Your task to perform on an android device: snooze an email in the gmail app Image 0: 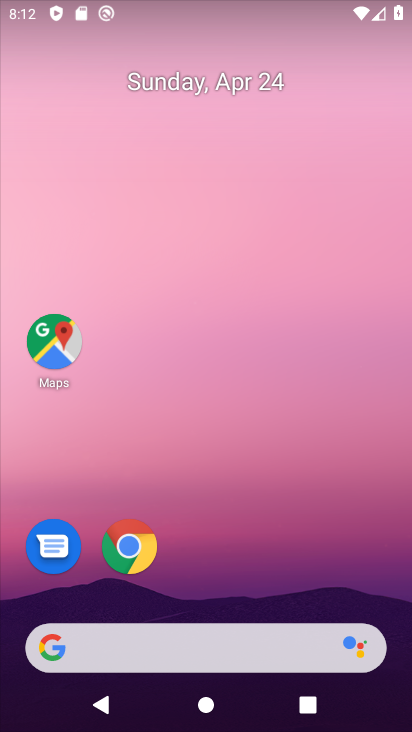
Step 0: drag from (283, 230) to (313, 2)
Your task to perform on an android device: snooze an email in the gmail app Image 1: 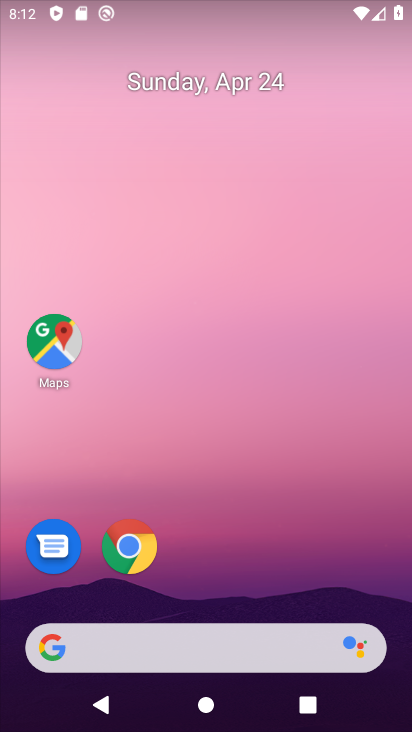
Step 1: drag from (257, 376) to (282, 58)
Your task to perform on an android device: snooze an email in the gmail app Image 2: 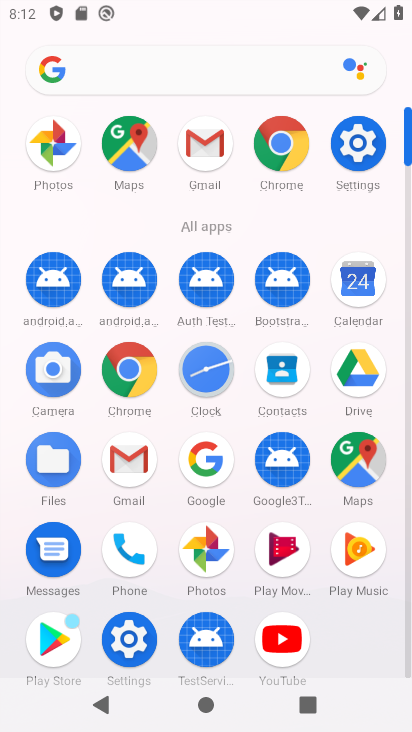
Step 2: click (195, 140)
Your task to perform on an android device: snooze an email in the gmail app Image 3: 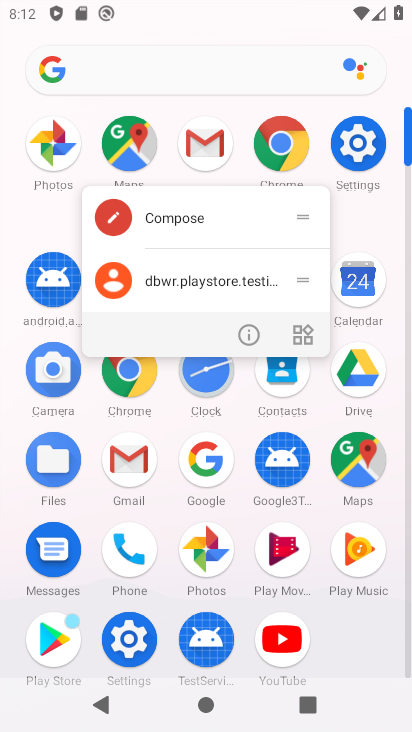
Step 3: click (386, 225)
Your task to perform on an android device: snooze an email in the gmail app Image 4: 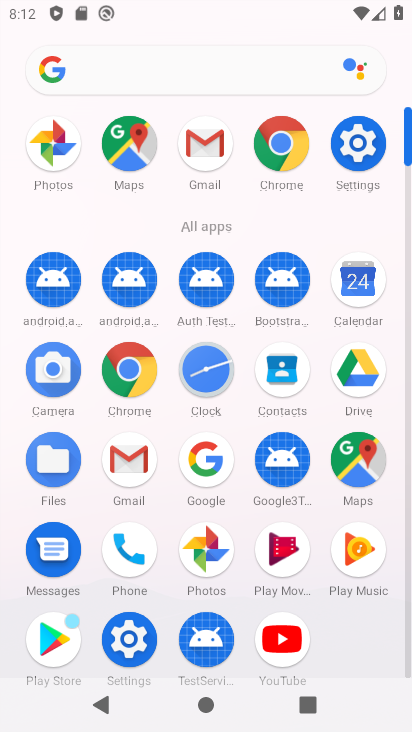
Step 4: click (201, 163)
Your task to perform on an android device: snooze an email in the gmail app Image 5: 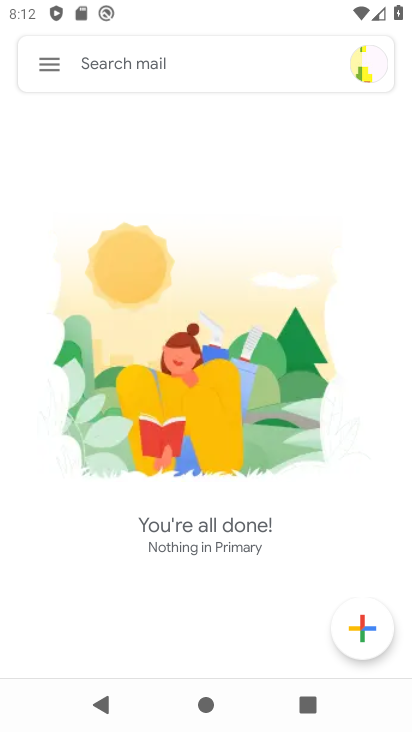
Step 5: click (56, 63)
Your task to perform on an android device: snooze an email in the gmail app Image 6: 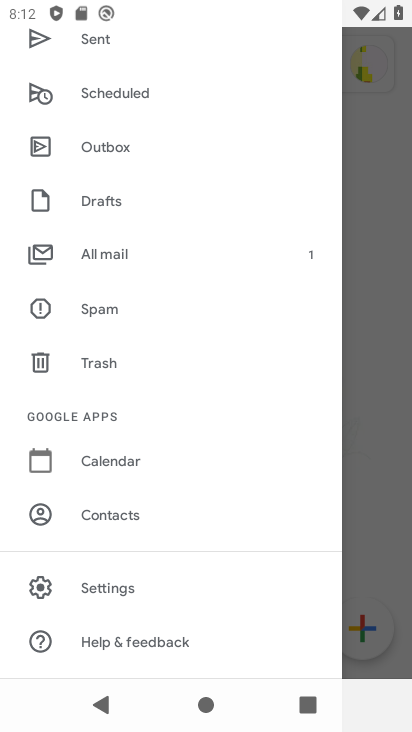
Step 6: click (146, 252)
Your task to perform on an android device: snooze an email in the gmail app Image 7: 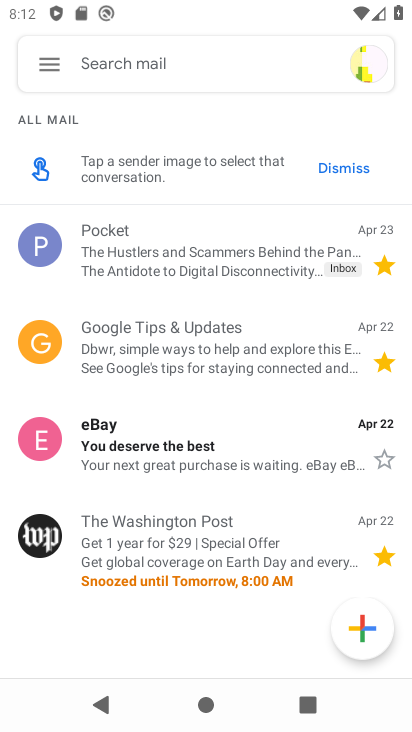
Step 7: click (171, 410)
Your task to perform on an android device: snooze an email in the gmail app Image 8: 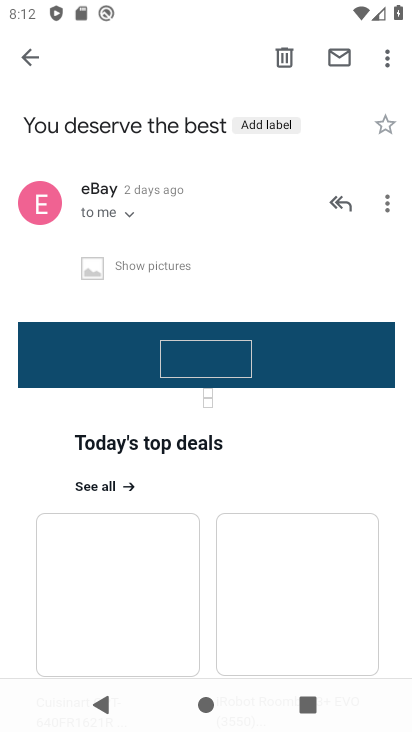
Step 8: click (386, 54)
Your task to perform on an android device: snooze an email in the gmail app Image 9: 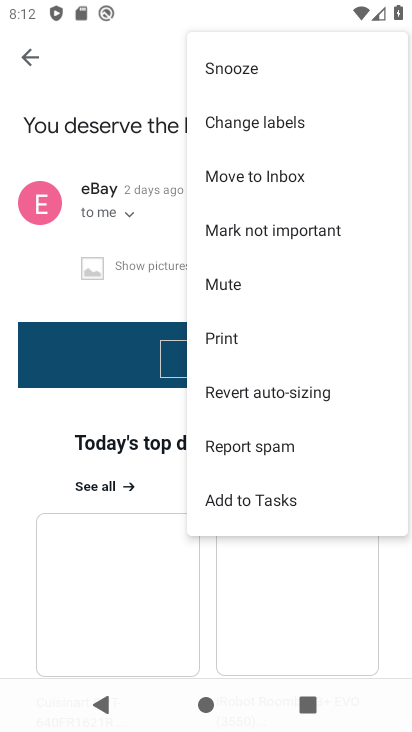
Step 9: click (34, 444)
Your task to perform on an android device: snooze an email in the gmail app Image 10: 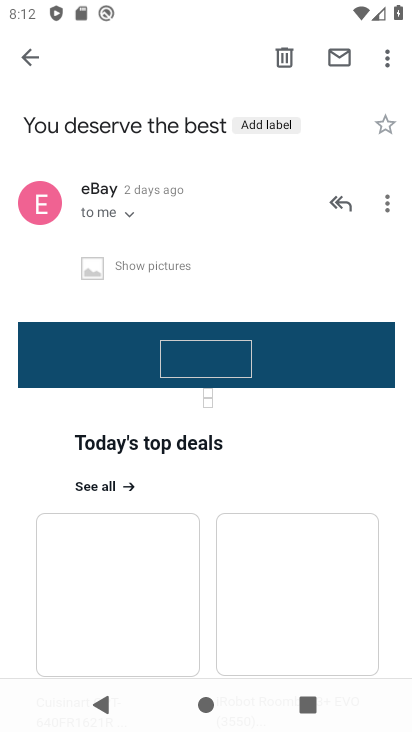
Step 10: click (378, 202)
Your task to perform on an android device: snooze an email in the gmail app Image 11: 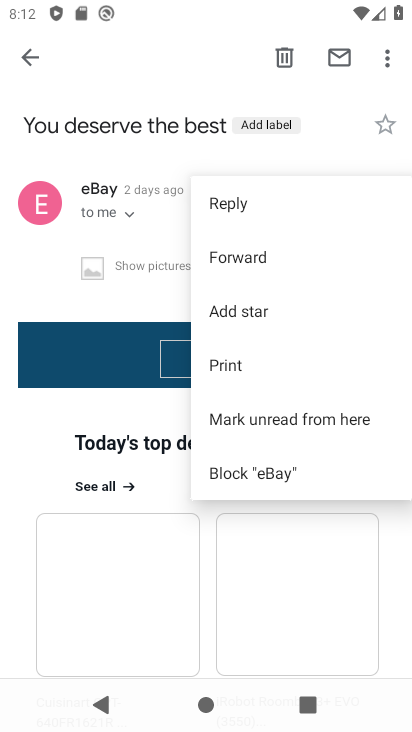
Step 11: click (23, 414)
Your task to perform on an android device: snooze an email in the gmail app Image 12: 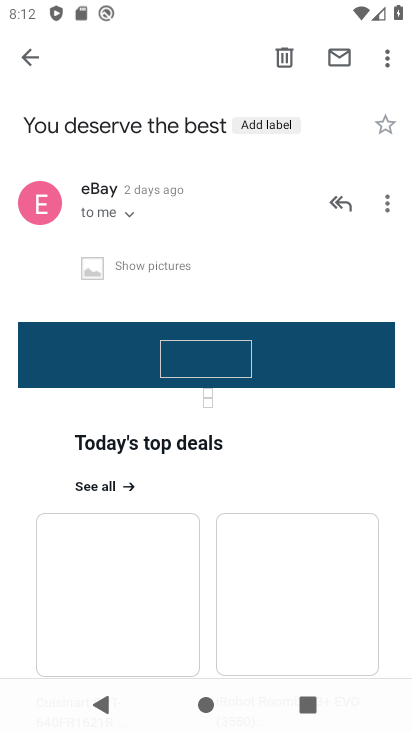
Step 12: click (386, 62)
Your task to perform on an android device: snooze an email in the gmail app Image 13: 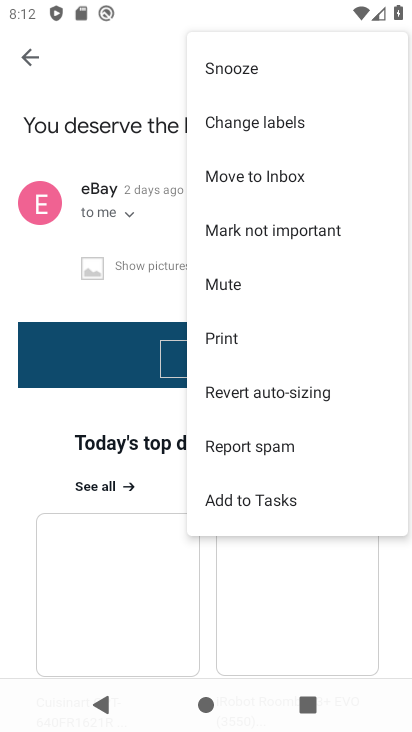
Step 13: click (250, 46)
Your task to perform on an android device: snooze an email in the gmail app Image 14: 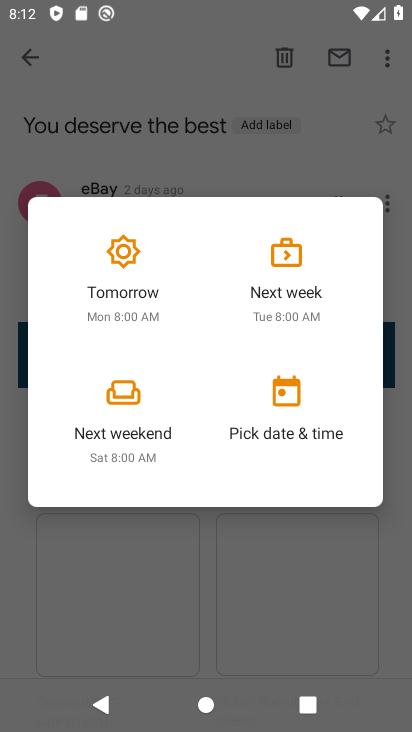
Step 14: click (146, 259)
Your task to perform on an android device: snooze an email in the gmail app Image 15: 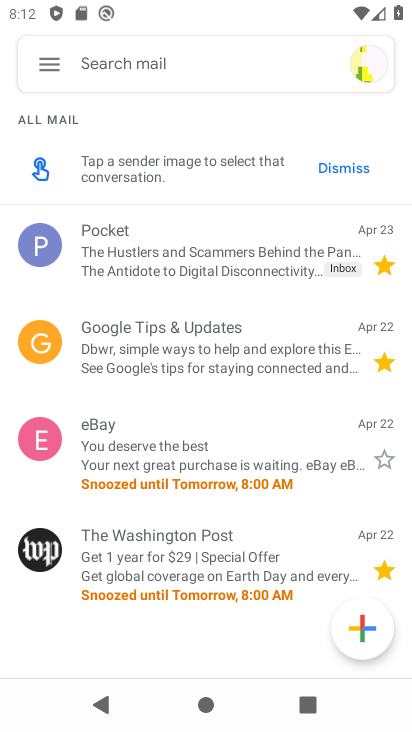
Step 15: task complete